Your task to perform on an android device: What's the weather going to be this weekend? Image 0: 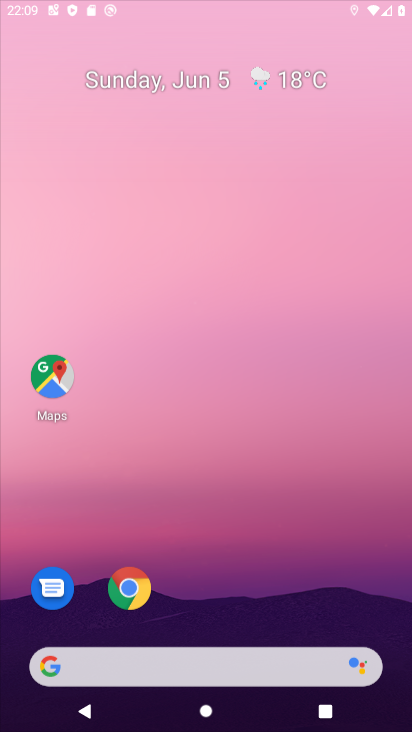
Step 0: drag from (362, 626) to (352, 217)
Your task to perform on an android device: What's the weather going to be this weekend? Image 1: 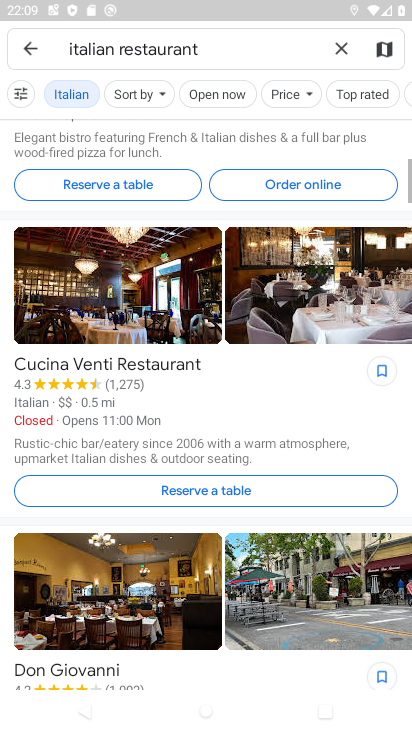
Step 1: press home button
Your task to perform on an android device: What's the weather going to be this weekend? Image 2: 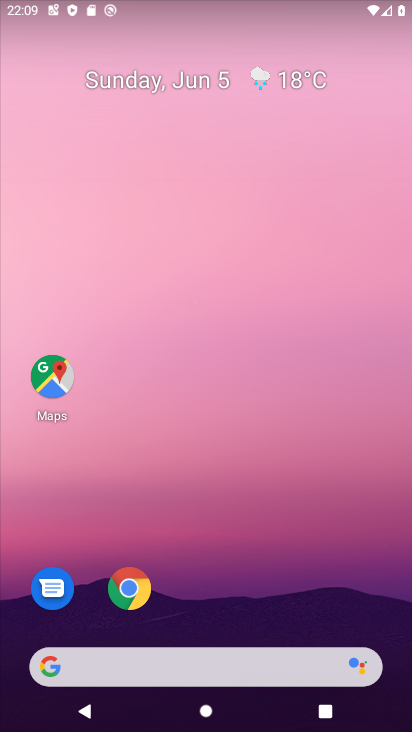
Step 2: click (294, 71)
Your task to perform on an android device: What's the weather going to be this weekend? Image 3: 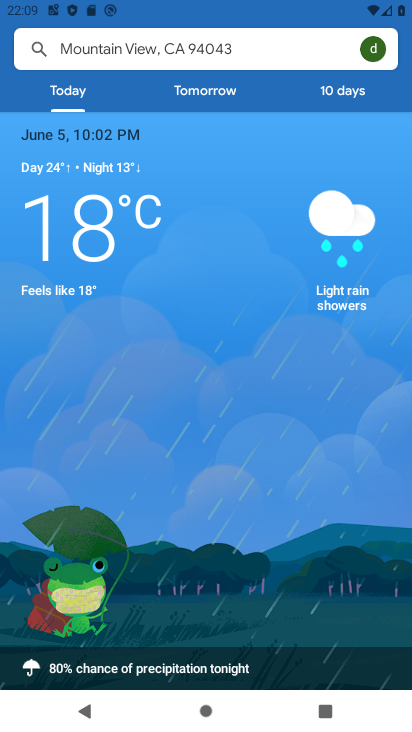
Step 3: click (347, 82)
Your task to perform on an android device: What's the weather going to be this weekend? Image 4: 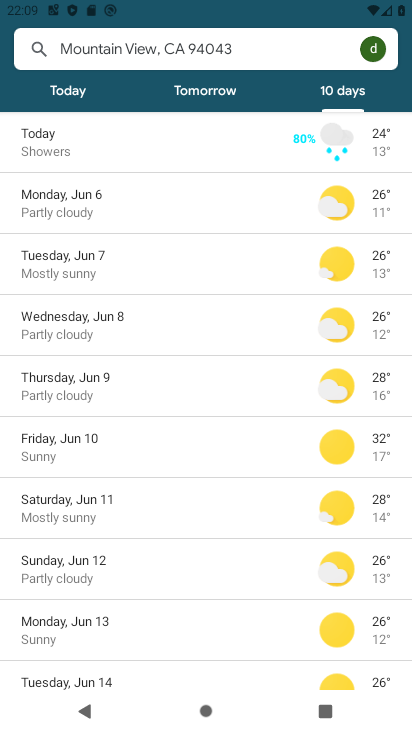
Step 4: drag from (251, 495) to (228, 270)
Your task to perform on an android device: What's the weather going to be this weekend? Image 5: 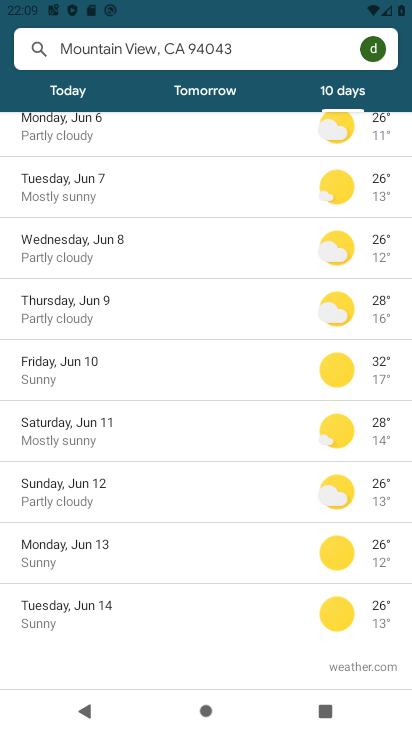
Step 5: click (151, 421)
Your task to perform on an android device: What's the weather going to be this weekend? Image 6: 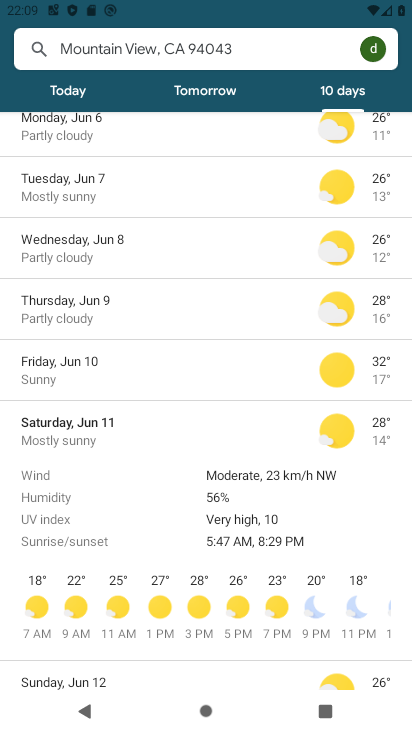
Step 6: task complete